Your task to perform on an android device: turn notification dots on Image 0: 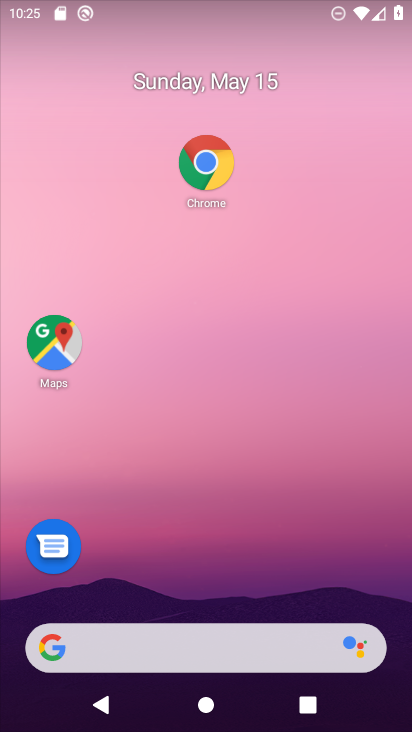
Step 0: click (58, 348)
Your task to perform on an android device: turn notification dots on Image 1: 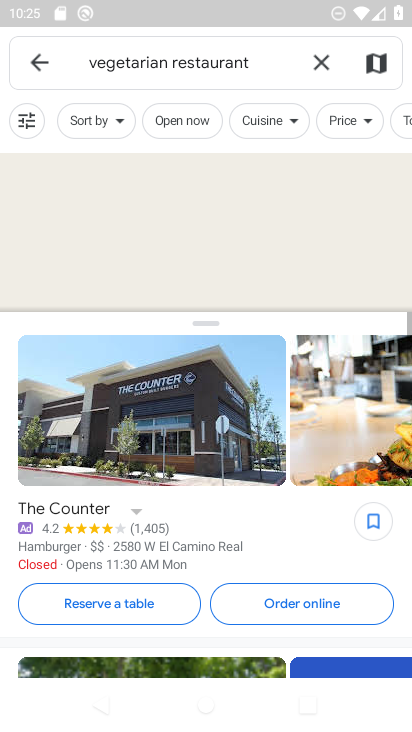
Step 1: press home button
Your task to perform on an android device: turn notification dots on Image 2: 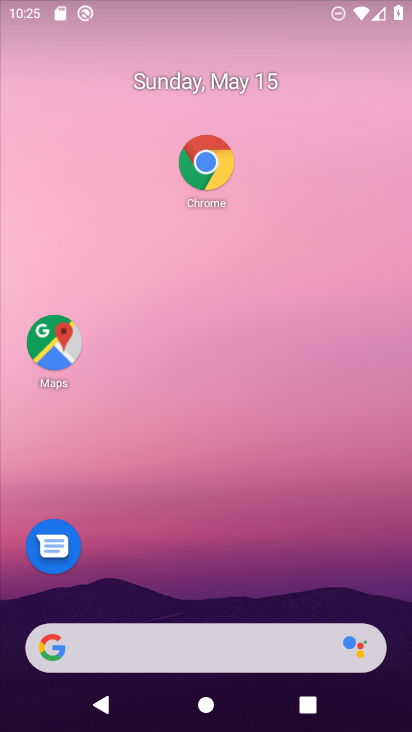
Step 2: drag from (243, 580) to (324, 256)
Your task to perform on an android device: turn notification dots on Image 3: 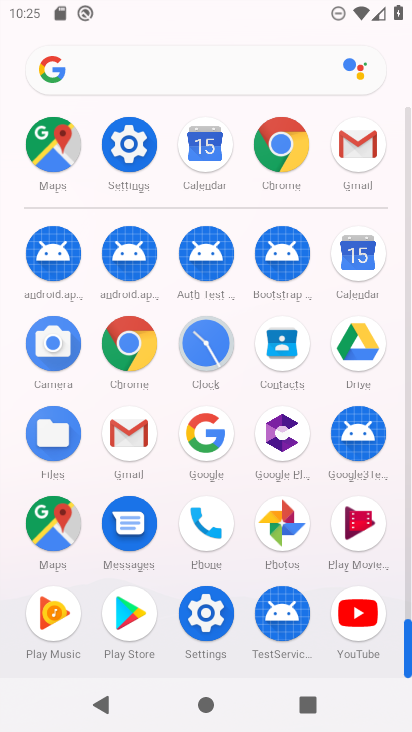
Step 3: click (119, 151)
Your task to perform on an android device: turn notification dots on Image 4: 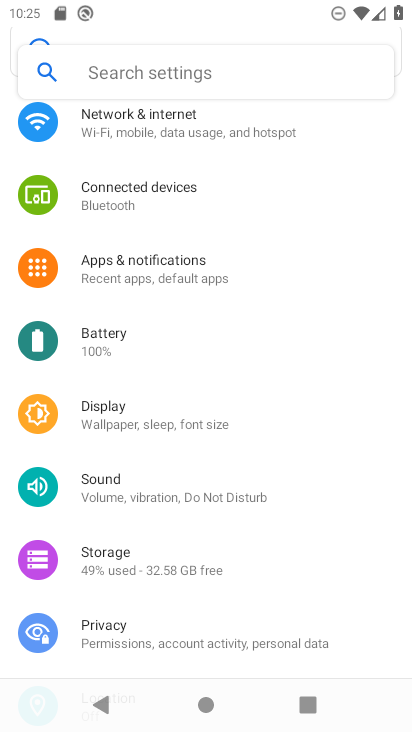
Step 4: click (221, 77)
Your task to perform on an android device: turn notification dots on Image 5: 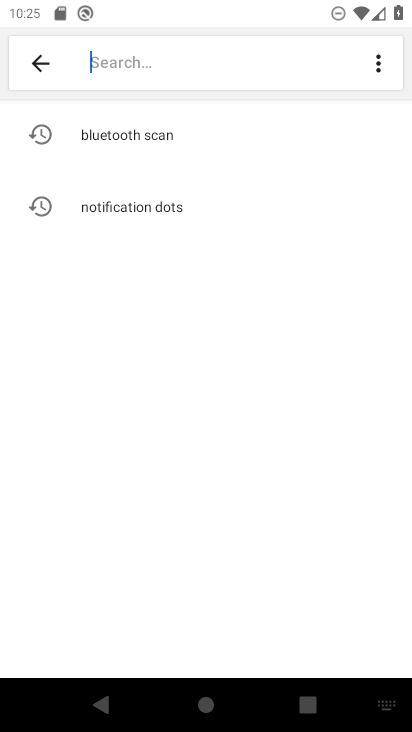
Step 5: click (190, 210)
Your task to perform on an android device: turn notification dots on Image 6: 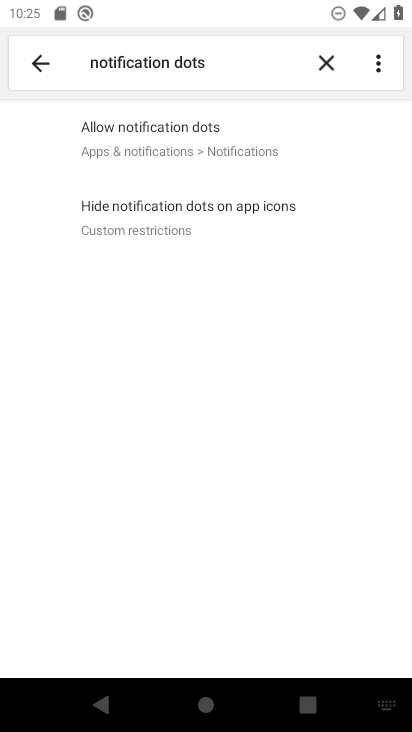
Step 6: click (189, 141)
Your task to perform on an android device: turn notification dots on Image 7: 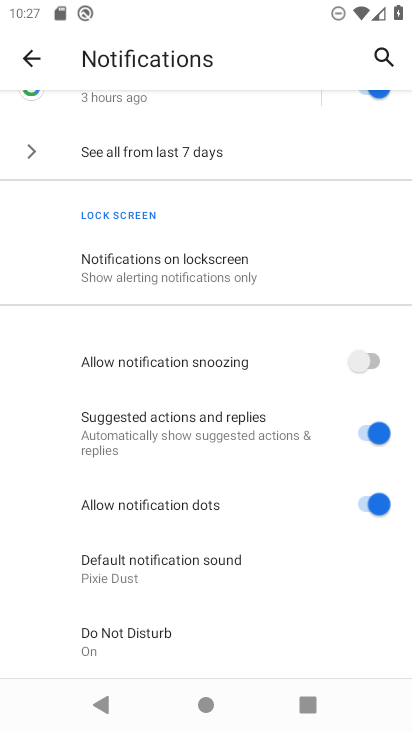
Step 7: task complete